Your task to perform on an android device: turn off data saver in the chrome app Image 0: 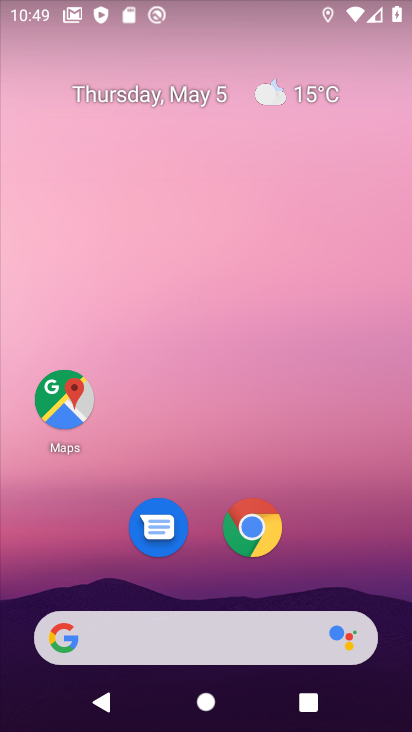
Step 0: click (246, 532)
Your task to perform on an android device: turn off data saver in the chrome app Image 1: 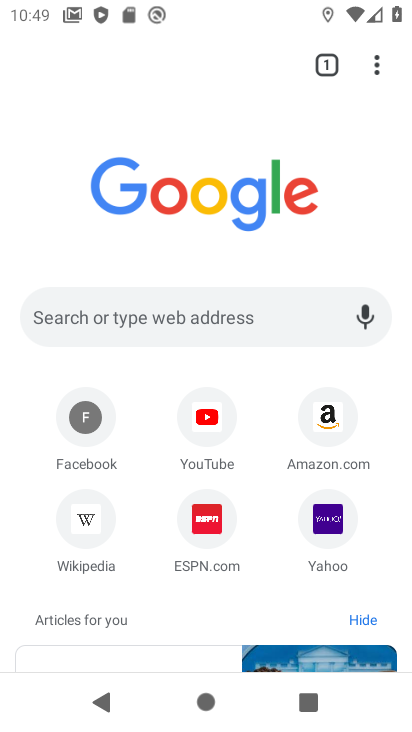
Step 1: click (381, 69)
Your task to perform on an android device: turn off data saver in the chrome app Image 2: 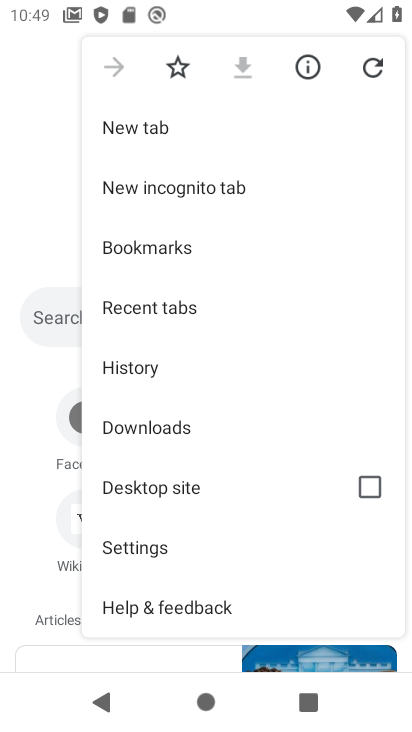
Step 2: click (161, 554)
Your task to perform on an android device: turn off data saver in the chrome app Image 3: 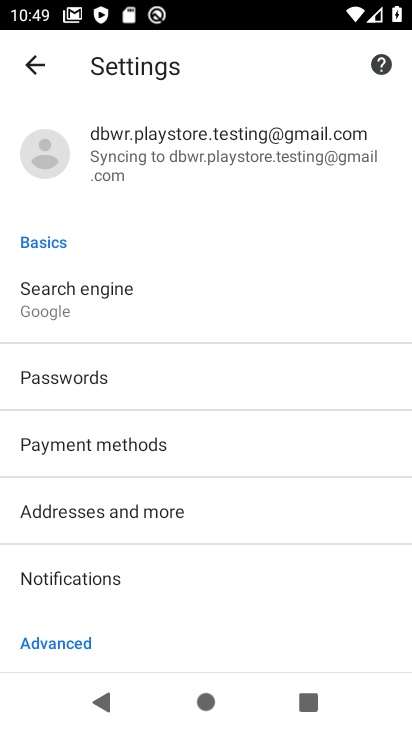
Step 3: drag from (128, 574) to (196, 218)
Your task to perform on an android device: turn off data saver in the chrome app Image 4: 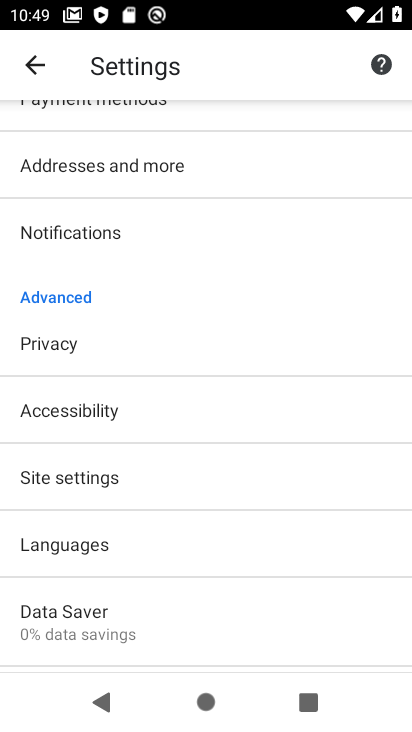
Step 4: click (76, 614)
Your task to perform on an android device: turn off data saver in the chrome app Image 5: 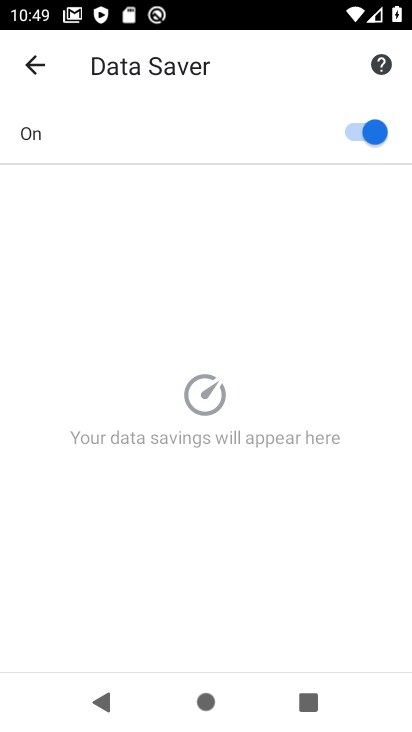
Step 5: click (357, 120)
Your task to perform on an android device: turn off data saver in the chrome app Image 6: 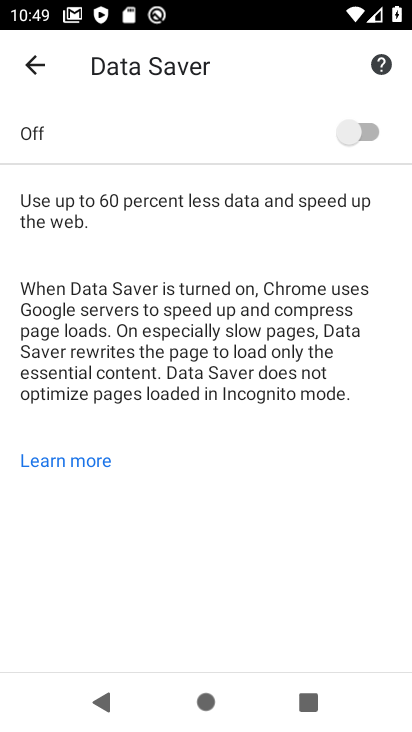
Step 6: task complete